Your task to perform on an android device: turn off location history Image 0: 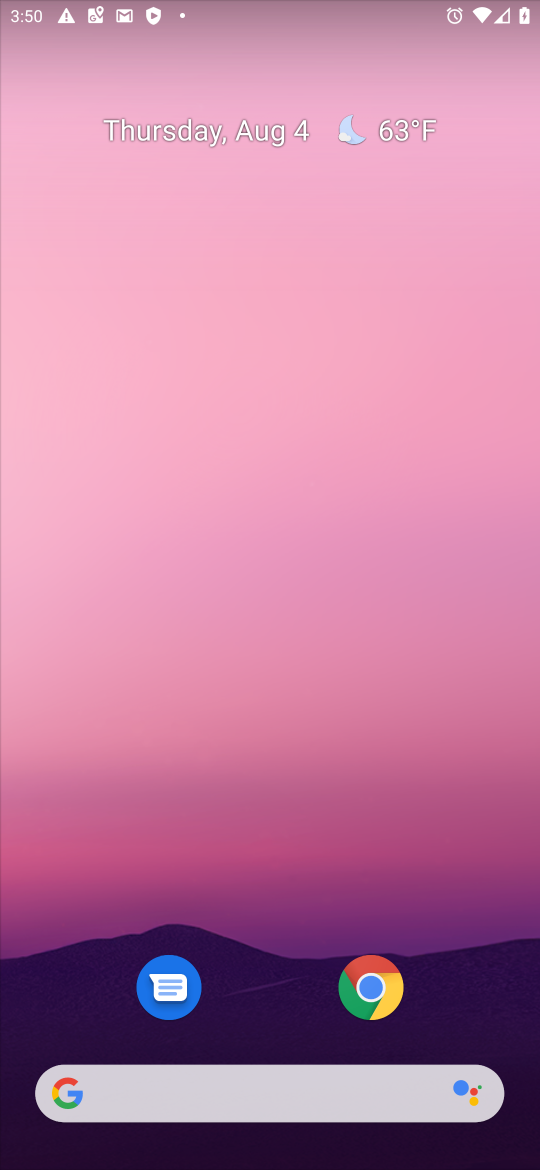
Step 0: drag from (247, 470) to (288, 339)
Your task to perform on an android device: turn off location history Image 1: 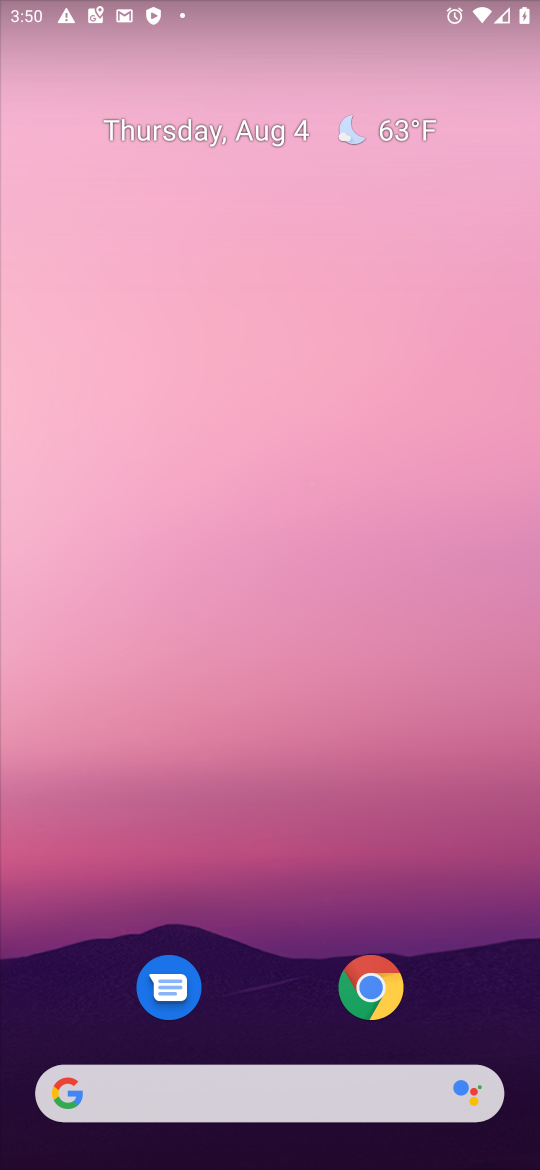
Step 1: drag from (209, 732) to (200, 192)
Your task to perform on an android device: turn off location history Image 2: 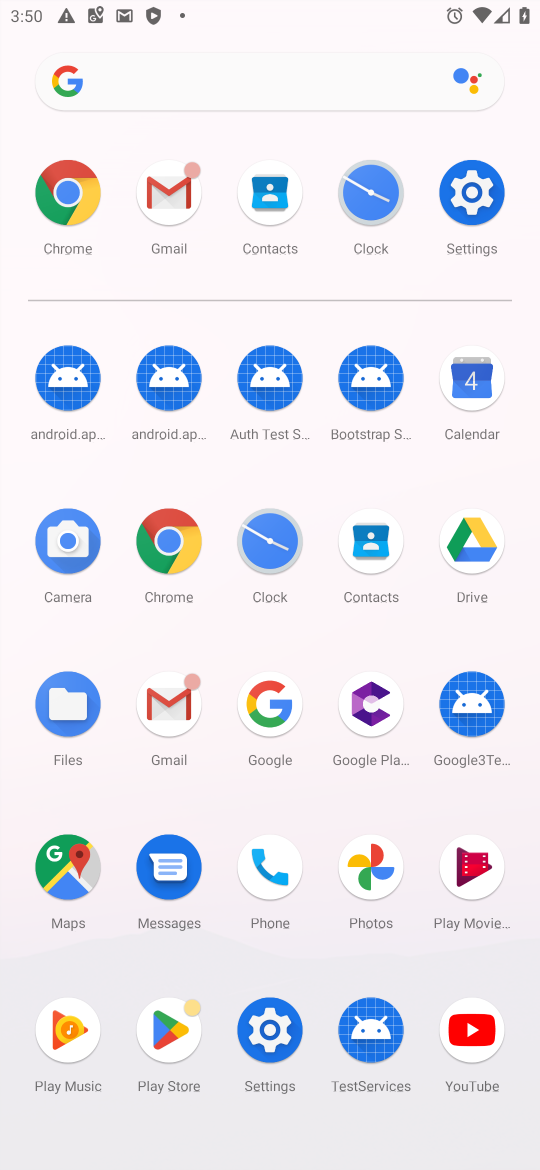
Step 2: click (480, 194)
Your task to perform on an android device: turn off location history Image 3: 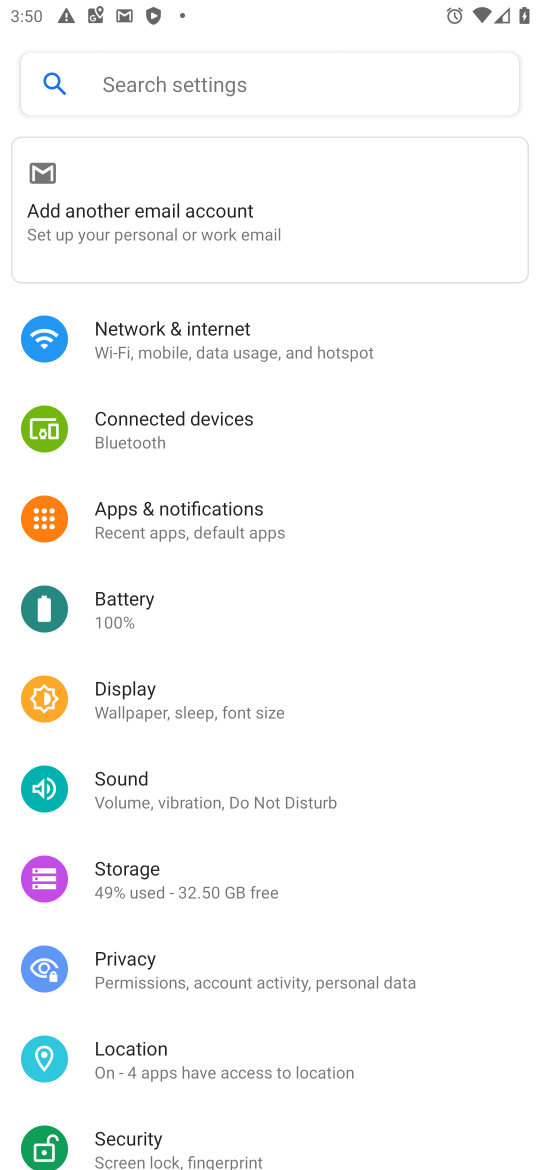
Step 3: click (106, 1059)
Your task to perform on an android device: turn off location history Image 4: 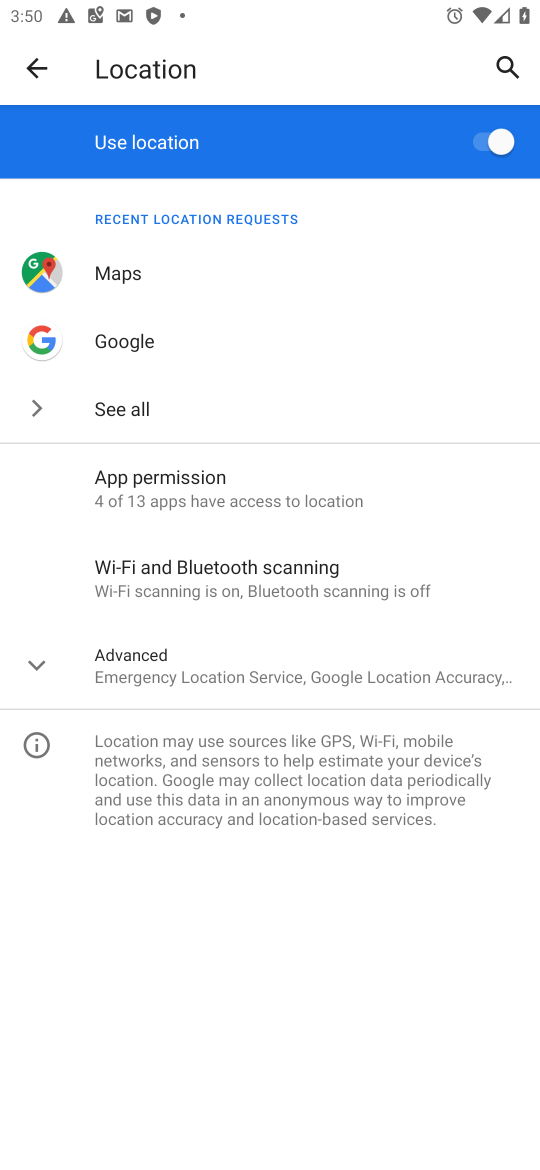
Step 4: click (133, 652)
Your task to perform on an android device: turn off location history Image 5: 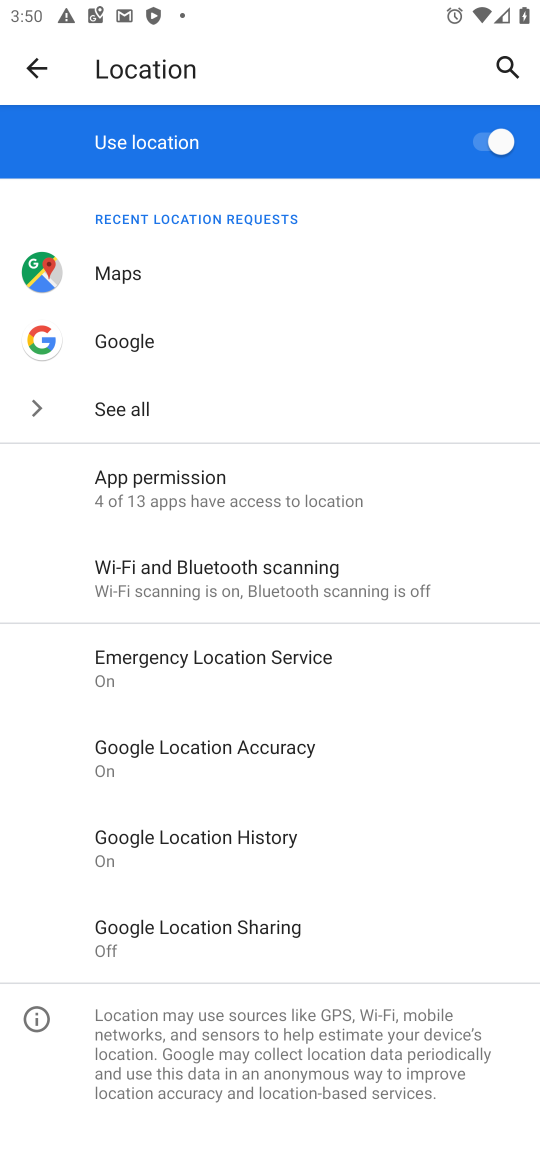
Step 5: click (184, 847)
Your task to perform on an android device: turn off location history Image 6: 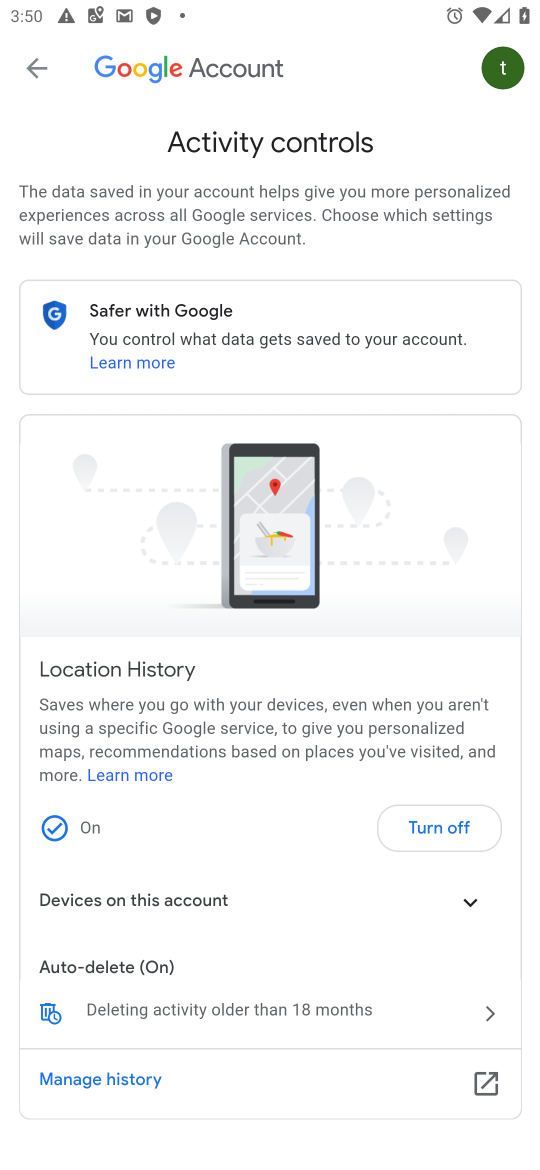
Step 6: click (426, 835)
Your task to perform on an android device: turn off location history Image 7: 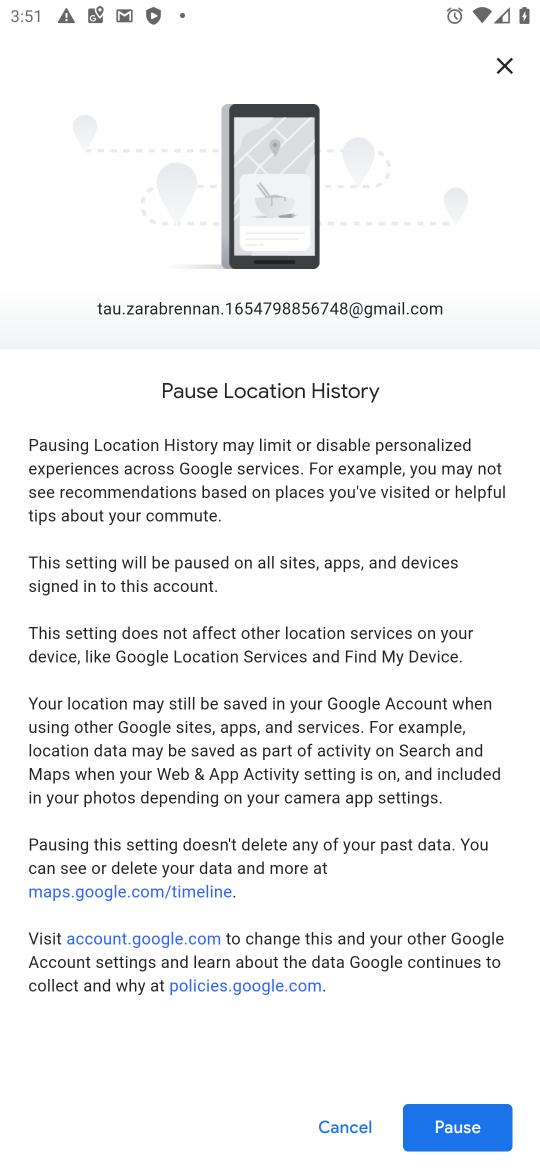
Step 7: click (451, 1117)
Your task to perform on an android device: turn off location history Image 8: 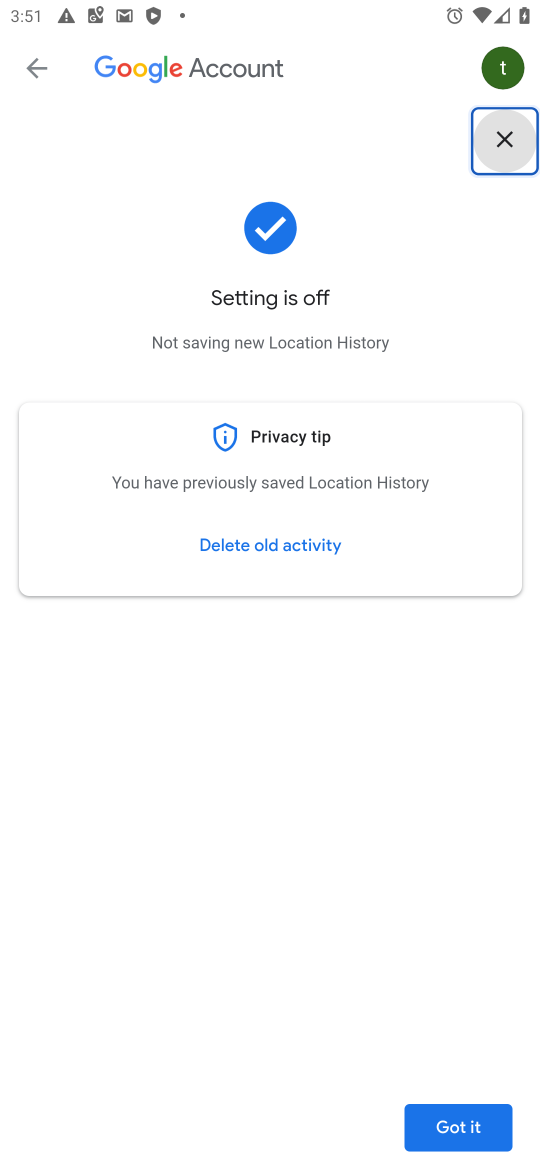
Step 8: click (451, 1117)
Your task to perform on an android device: turn off location history Image 9: 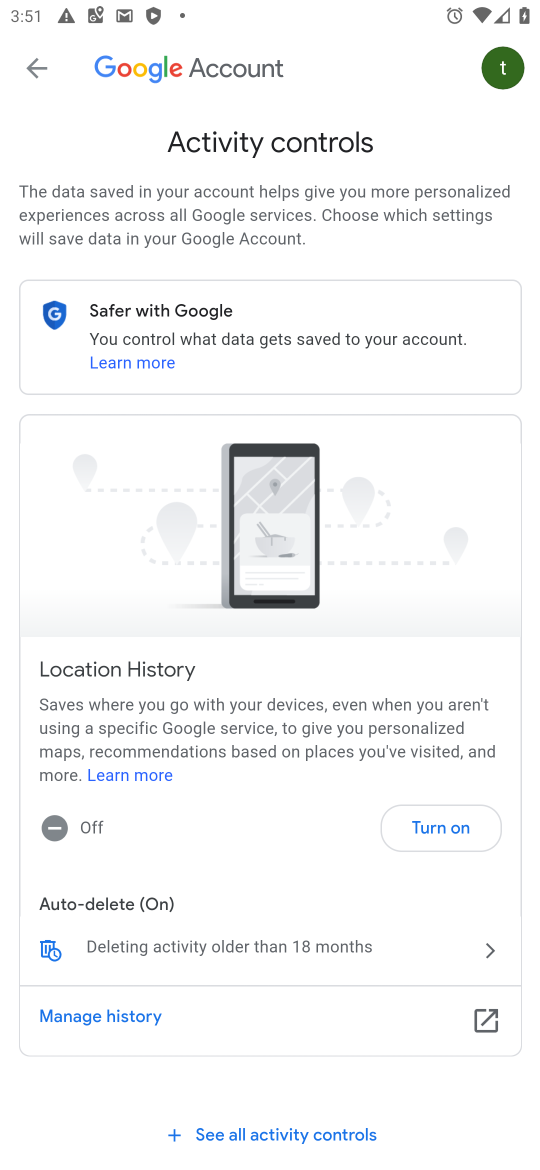
Step 9: task complete